Your task to perform on an android device: Toggle the flashlight Image 0: 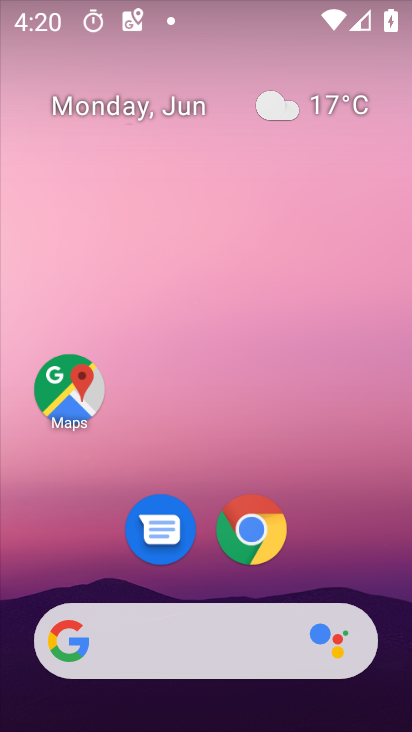
Step 0: drag from (324, 585) to (231, 71)
Your task to perform on an android device: Toggle the flashlight Image 1: 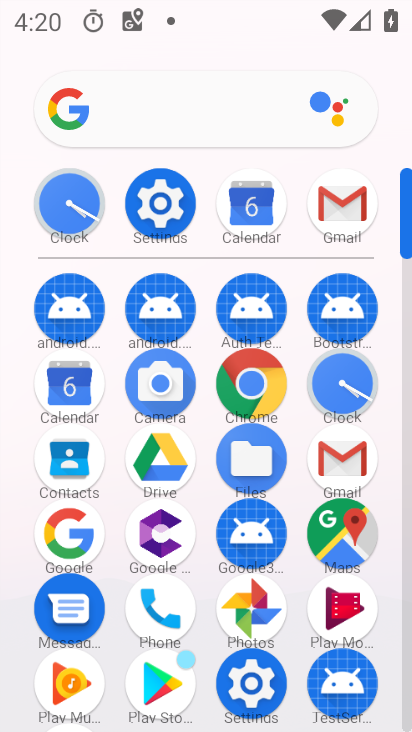
Step 1: click (164, 206)
Your task to perform on an android device: Toggle the flashlight Image 2: 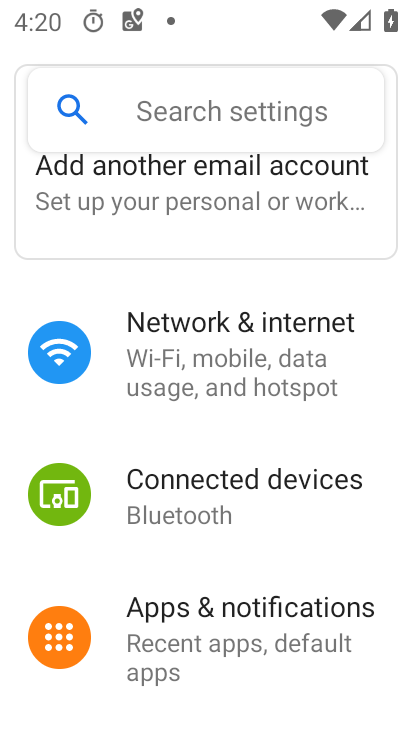
Step 2: drag from (180, 545) to (176, 310)
Your task to perform on an android device: Toggle the flashlight Image 3: 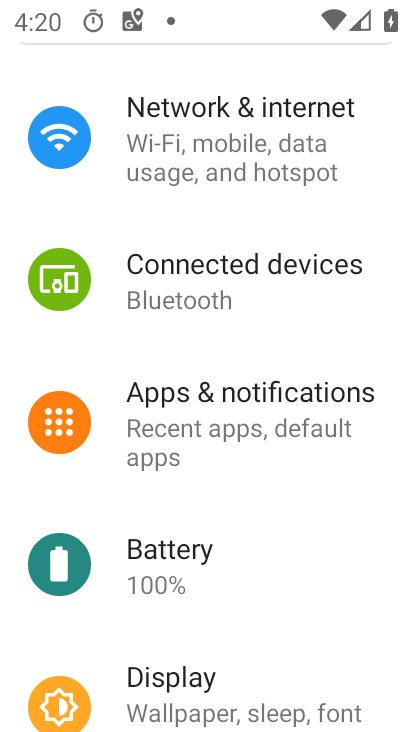
Step 3: drag from (199, 612) to (197, 400)
Your task to perform on an android device: Toggle the flashlight Image 4: 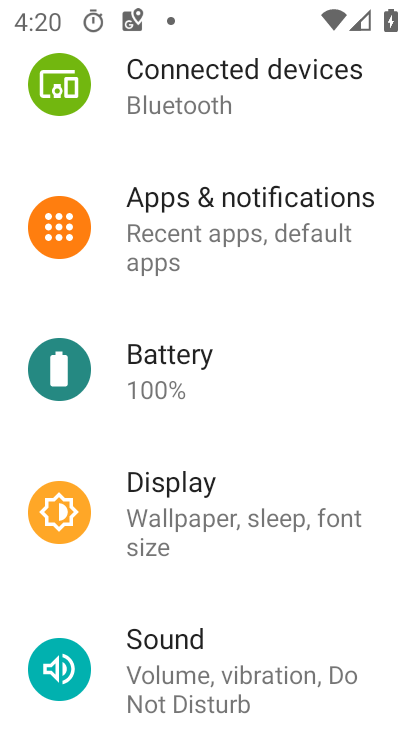
Step 4: drag from (179, 588) to (177, 382)
Your task to perform on an android device: Toggle the flashlight Image 5: 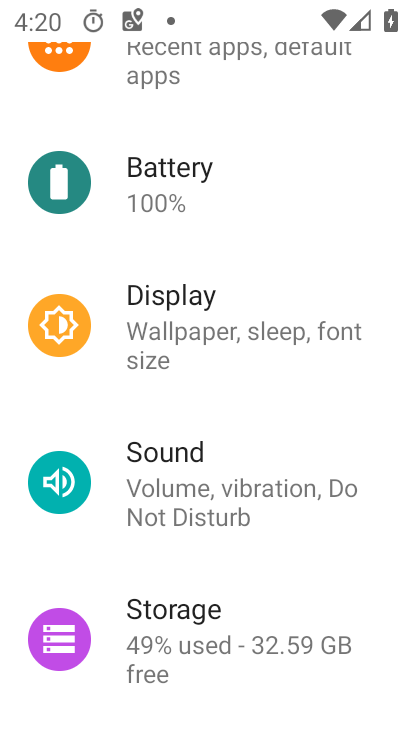
Step 5: drag from (189, 574) to (200, 430)
Your task to perform on an android device: Toggle the flashlight Image 6: 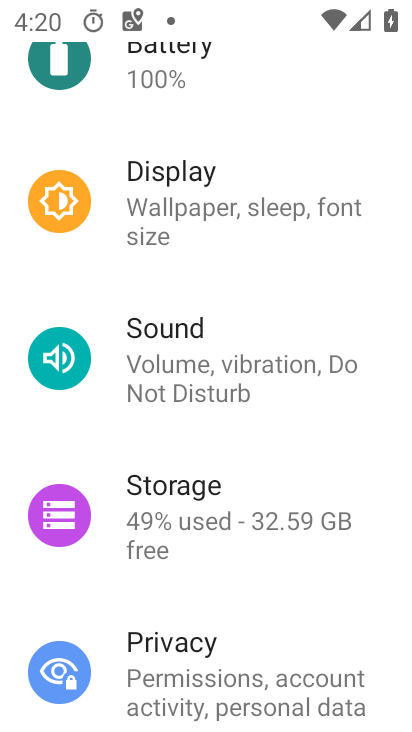
Step 6: click (274, 210)
Your task to perform on an android device: Toggle the flashlight Image 7: 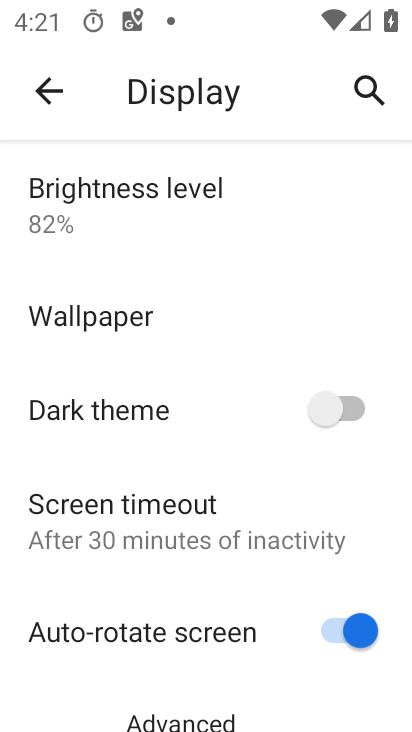
Step 7: click (159, 548)
Your task to perform on an android device: Toggle the flashlight Image 8: 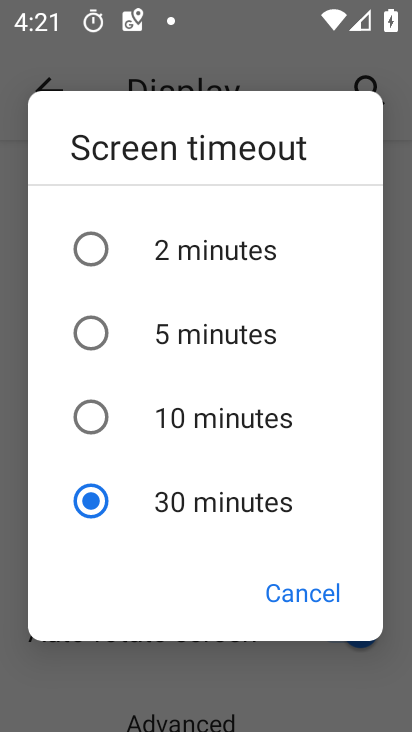
Step 8: press back button
Your task to perform on an android device: Toggle the flashlight Image 9: 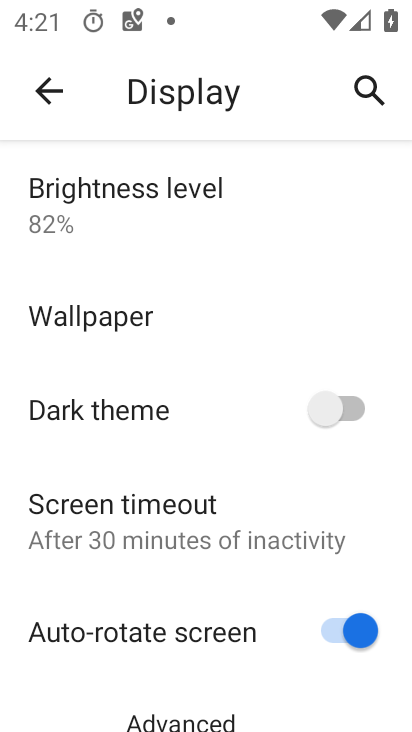
Step 9: drag from (203, 600) to (265, 334)
Your task to perform on an android device: Toggle the flashlight Image 10: 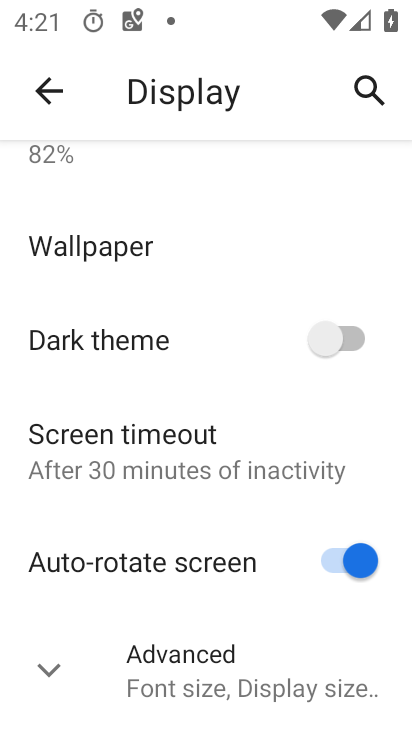
Step 10: drag from (189, 613) to (270, 361)
Your task to perform on an android device: Toggle the flashlight Image 11: 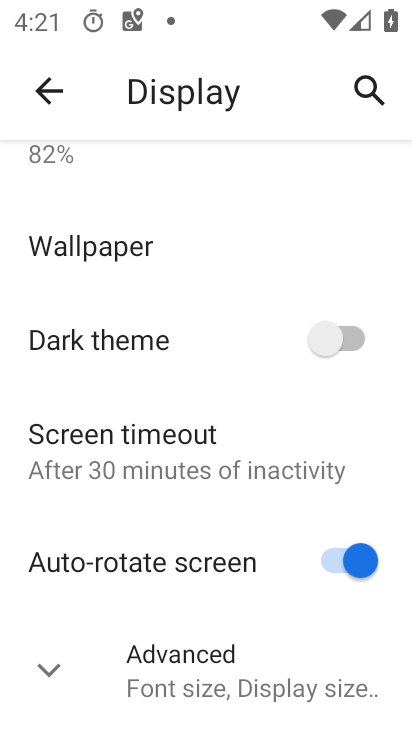
Step 11: drag from (154, 627) to (197, 527)
Your task to perform on an android device: Toggle the flashlight Image 12: 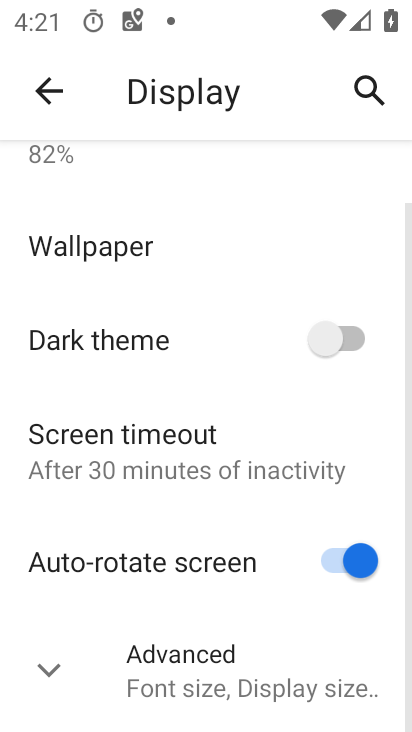
Step 12: click (221, 676)
Your task to perform on an android device: Toggle the flashlight Image 13: 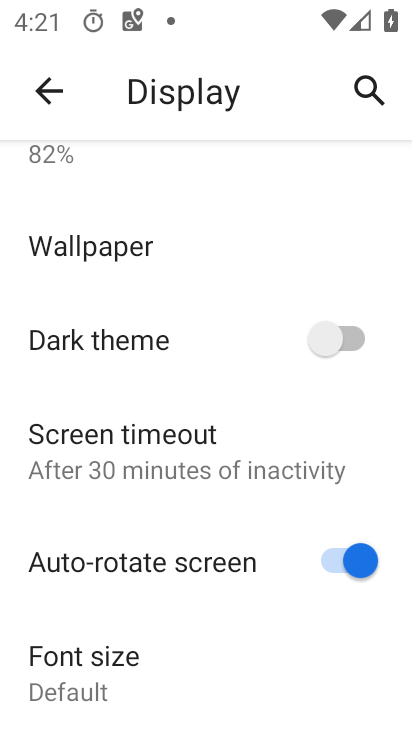
Step 13: task complete